Your task to perform on an android device: What is the news today? Image 0: 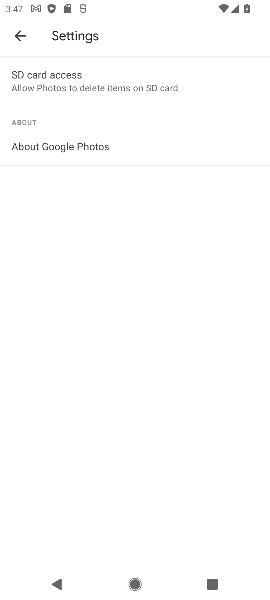
Step 0: click (147, 55)
Your task to perform on an android device: What is the news today? Image 1: 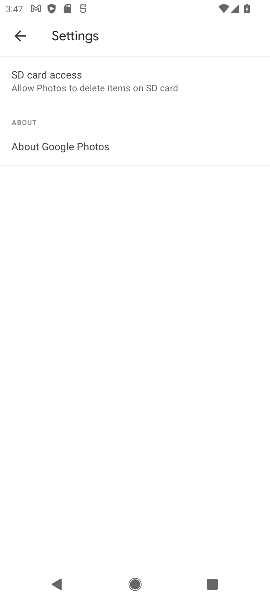
Step 1: press home button
Your task to perform on an android device: What is the news today? Image 2: 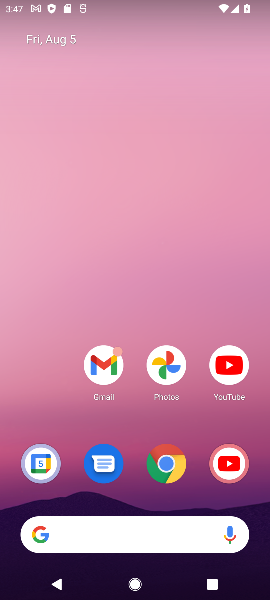
Step 2: drag from (117, 532) to (218, 0)
Your task to perform on an android device: What is the news today? Image 3: 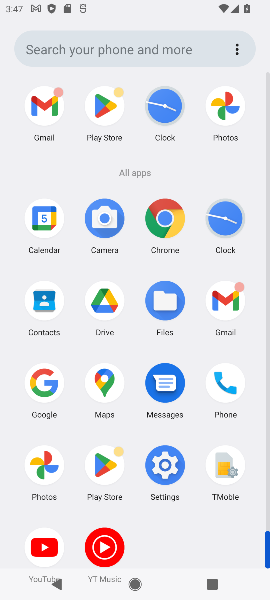
Step 3: click (75, 50)
Your task to perform on an android device: What is the news today? Image 4: 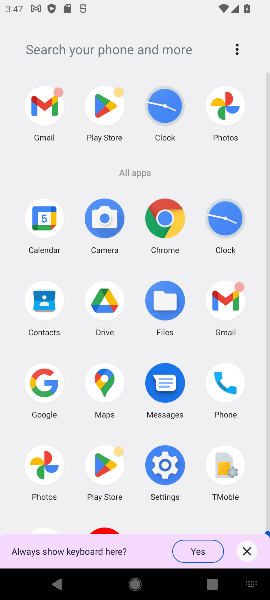
Step 4: type "news today?"
Your task to perform on an android device: What is the news today? Image 5: 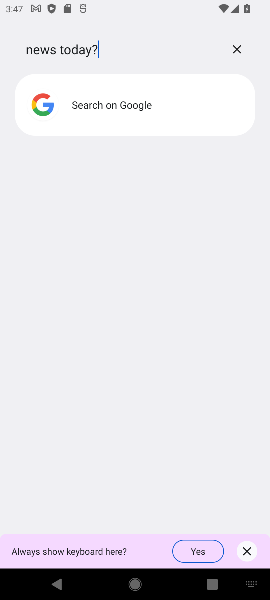
Step 5: type ""
Your task to perform on an android device: What is the news today? Image 6: 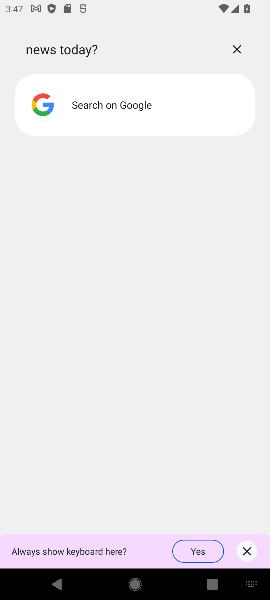
Step 6: click (103, 120)
Your task to perform on an android device: What is the news today? Image 7: 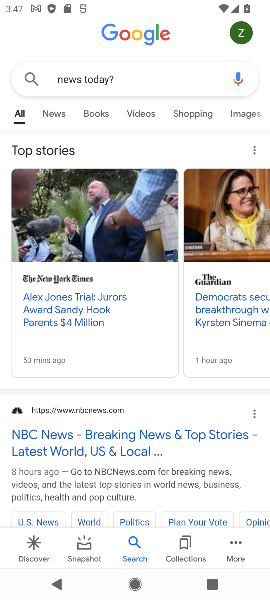
Step 7: task complete